Your task to perform on an android device: Open my contact list Image 0: 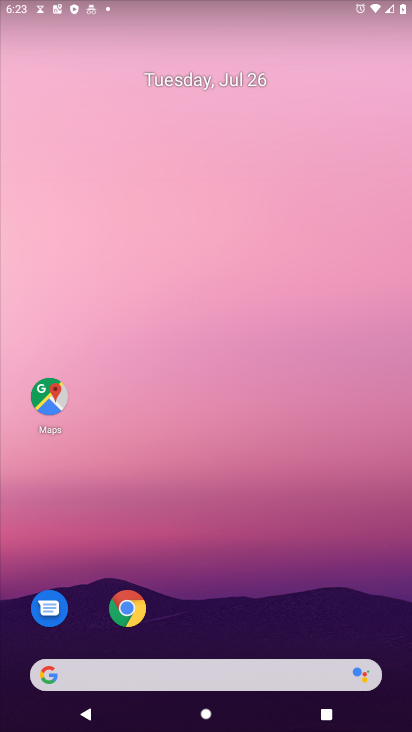
Step 0: press home button
Your task to perform on an android device: Open my contact list Image 1: 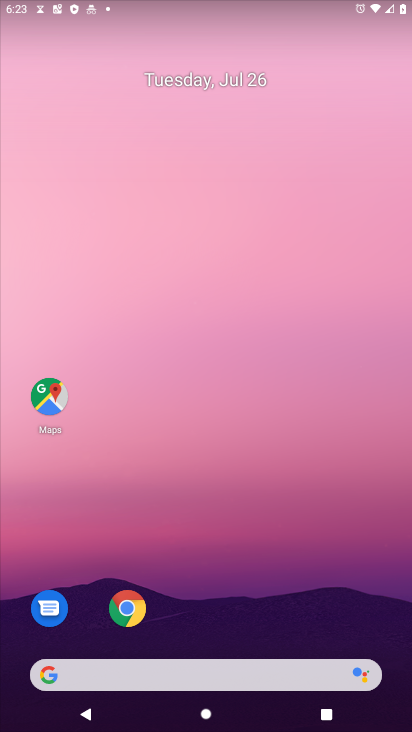
Step 1: drag from (241, 641) to (228, 91)
Your task to perform on an android device: Open my contact list Image 2: 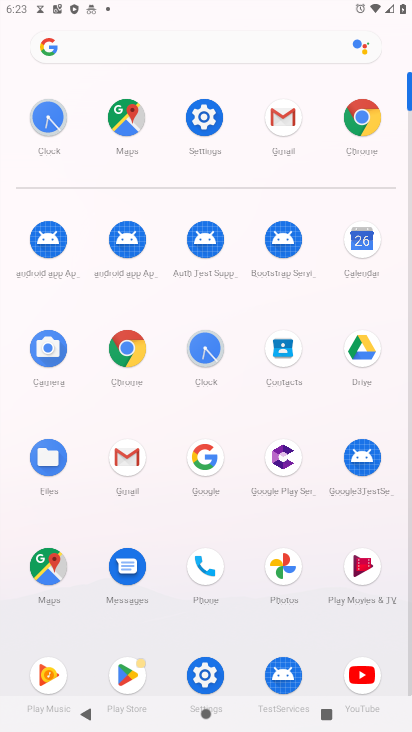
Step 2: click (283, 355)
Your task to perform on an android device: Open my contact list Image 3: 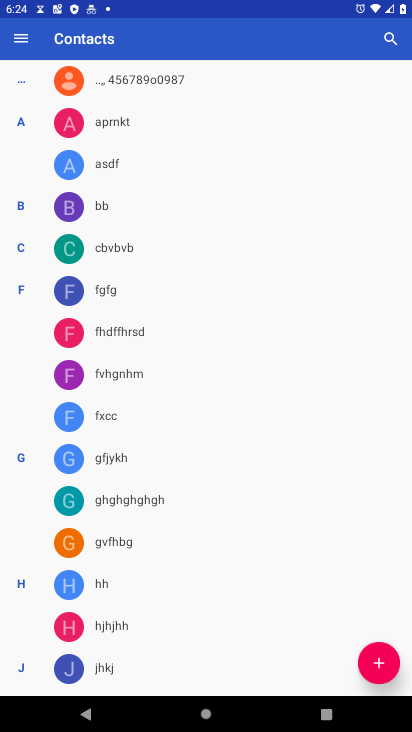
Step 3: task complete